Your task to perform on an android device: Show me popular videos on Youtube Image 0: 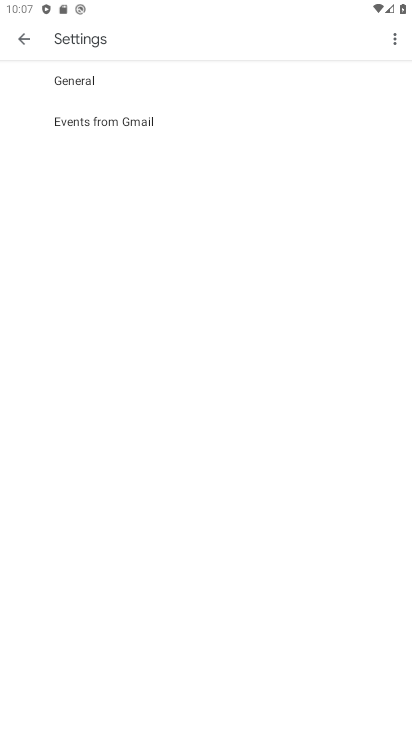
Step 0: press home button
Your task to perform on an android device: Show me popular videos on Youtube Image 1: 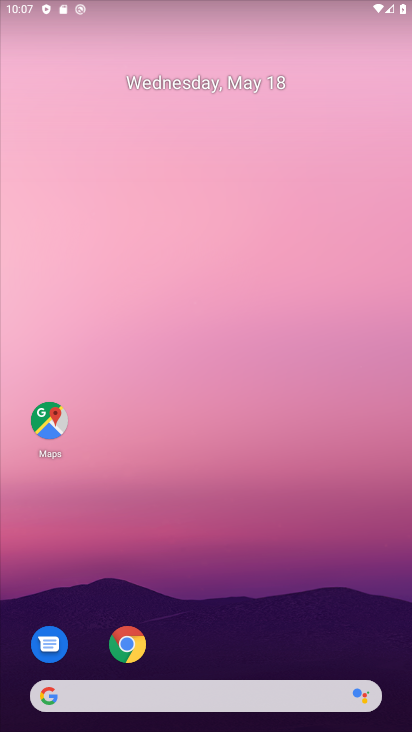
Step 1: drag from (341, 651) to (302, 65)
Your task to perform on an android device: Show me popular videos on Youtube Image 2: 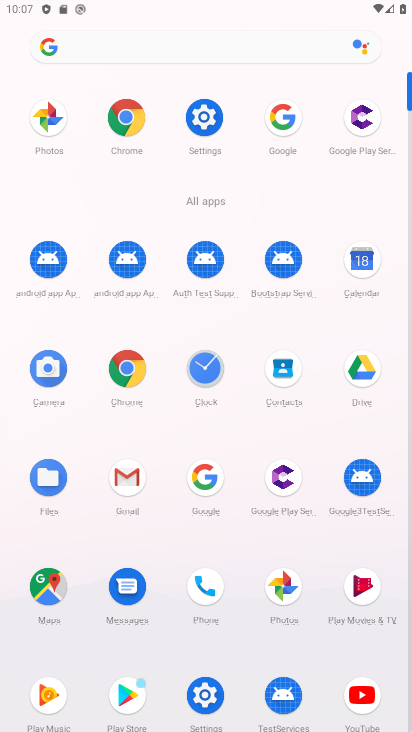
Step 2: click (362, 696)
Your task to perform on an android device: Show me popular videos on Youtube Image 3: 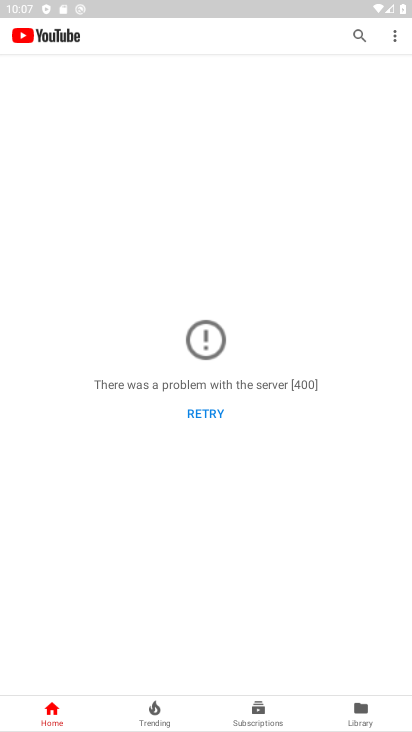
Step 3: task complete